Your task to perform on an android device: delete browsing data in the chrome app Image 0: 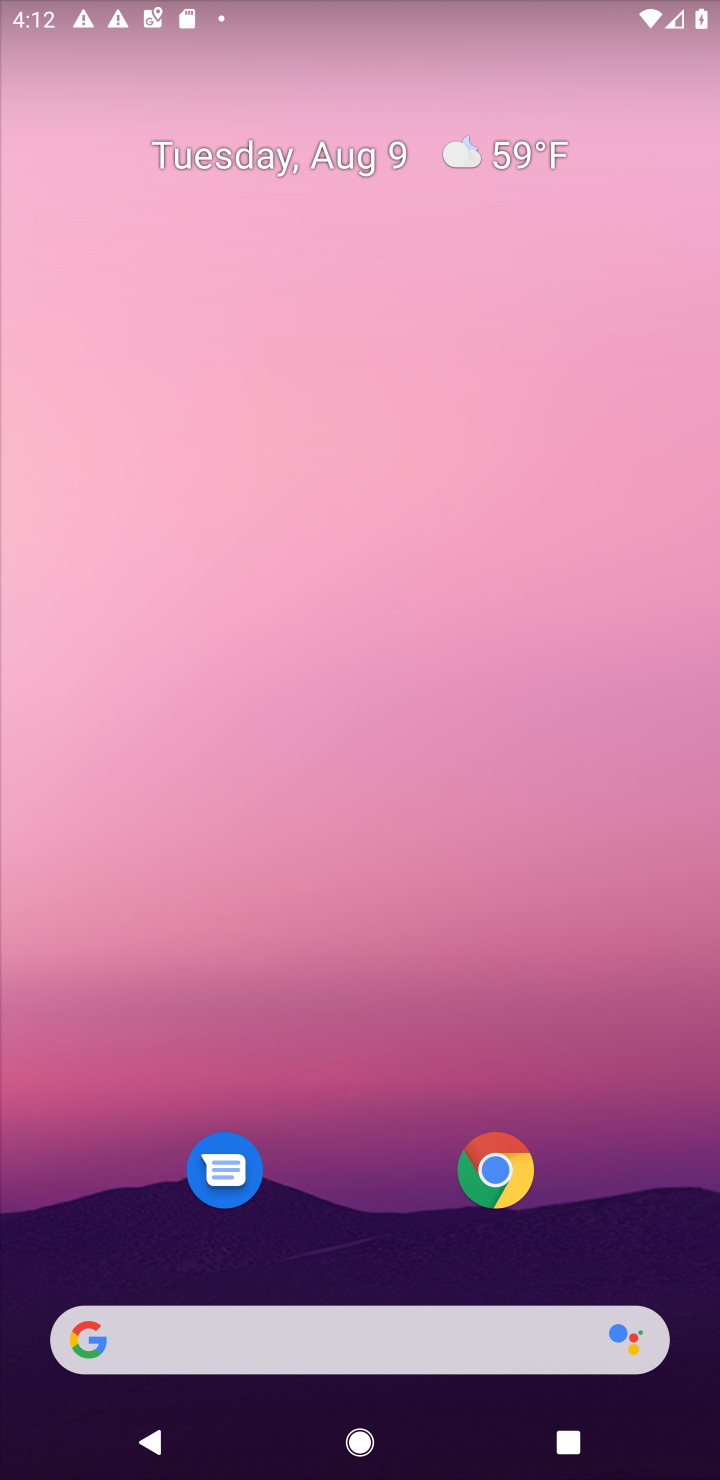
Step 0: press home button
Your task to perform on an android device: delete browsing data in the chrome app Image 1: 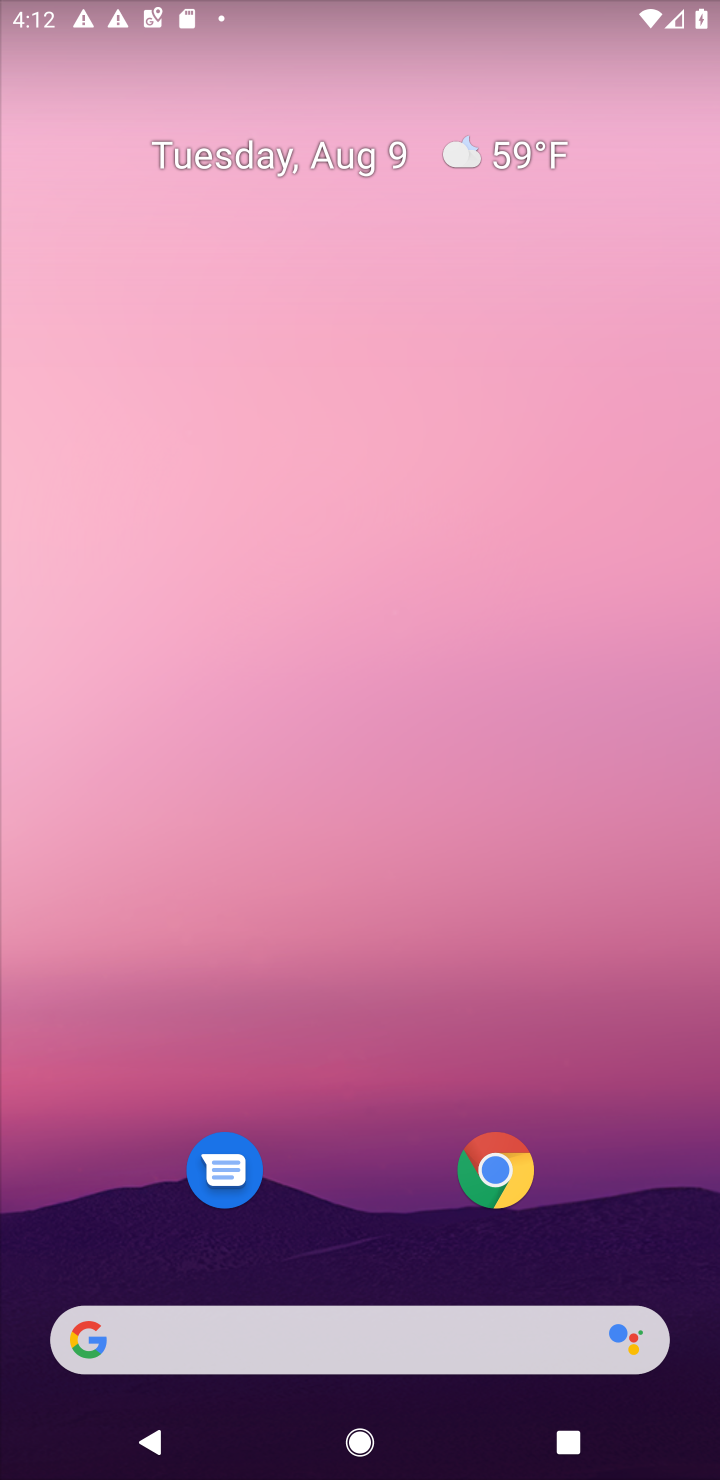
Step 1: click (465, 1167)
Your task to perform on an android device: delete browsing data in the chrome app Image 2: 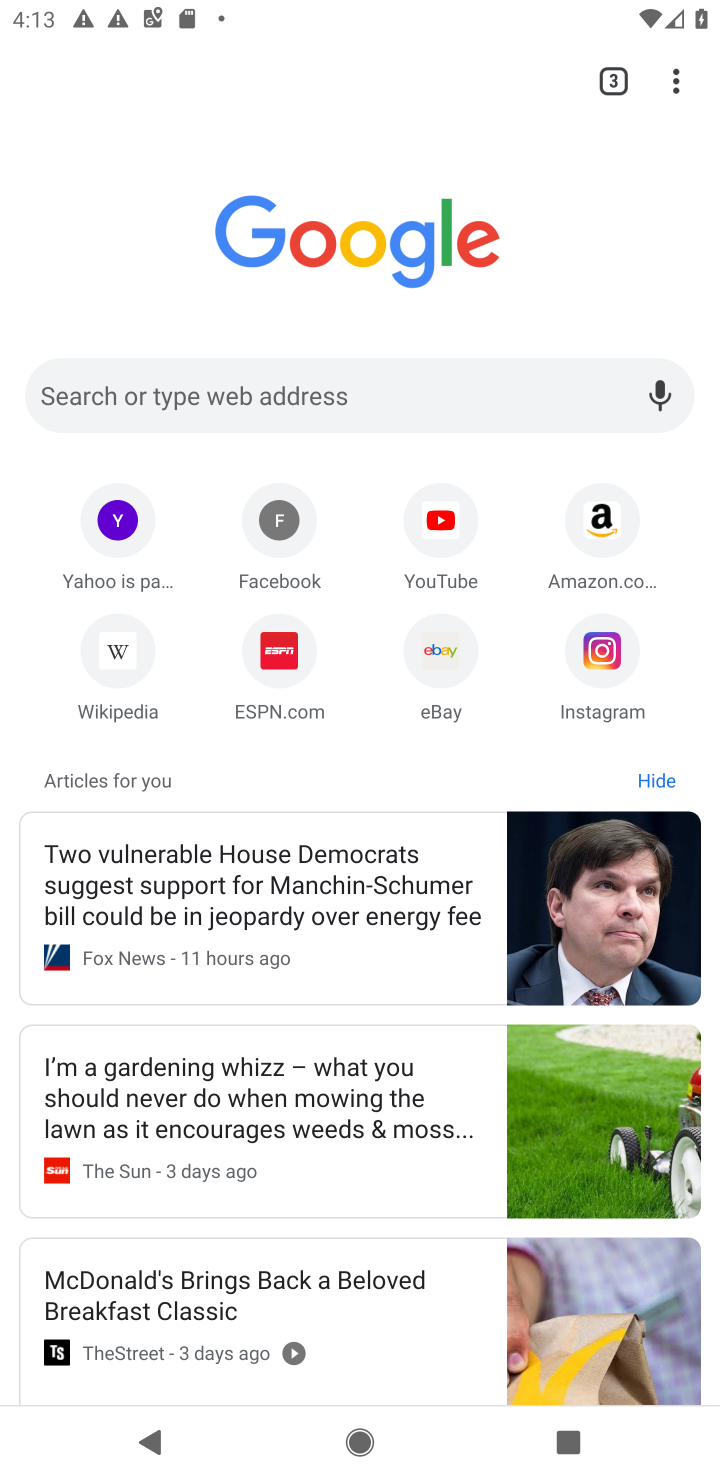
Step 2: click (670, 65)
Your task to perform on an android device: delete browsing data in the chrome app Image 3: 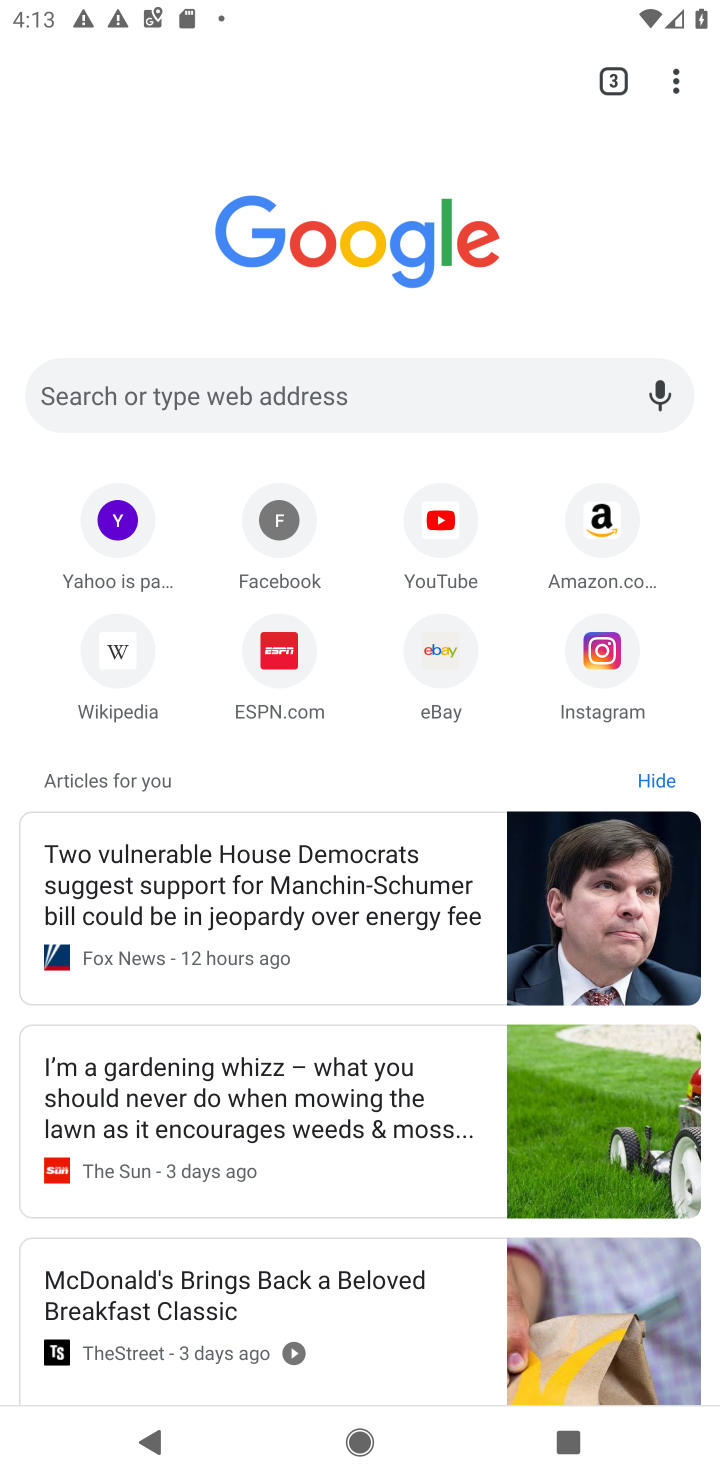
Step 3: drag from (672, 60) to (417, 681)
Your task to perform on an android device: delete browsing data in the chrome app Image 4: 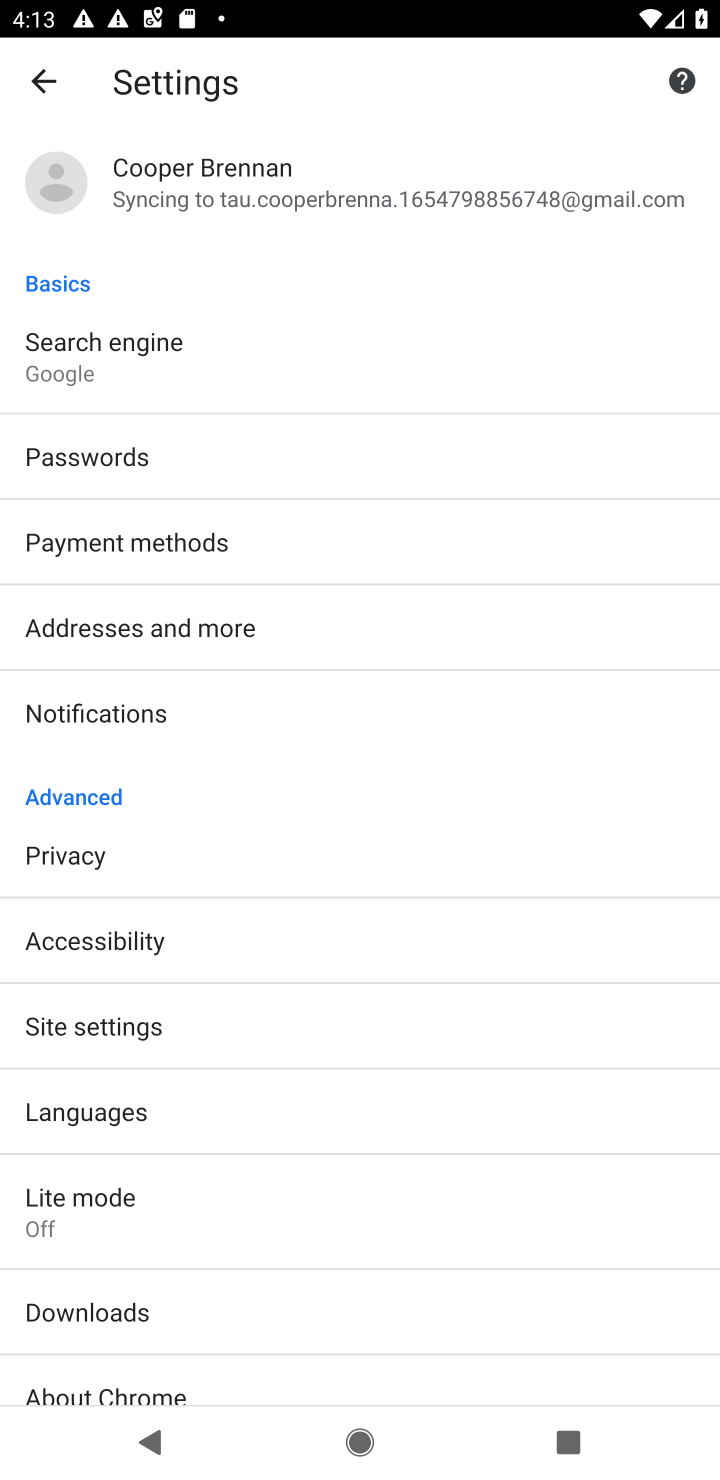
Step 4: click (56, 846)
Your task to perform on an android device: delete browsing data in the chrome app Image 5: 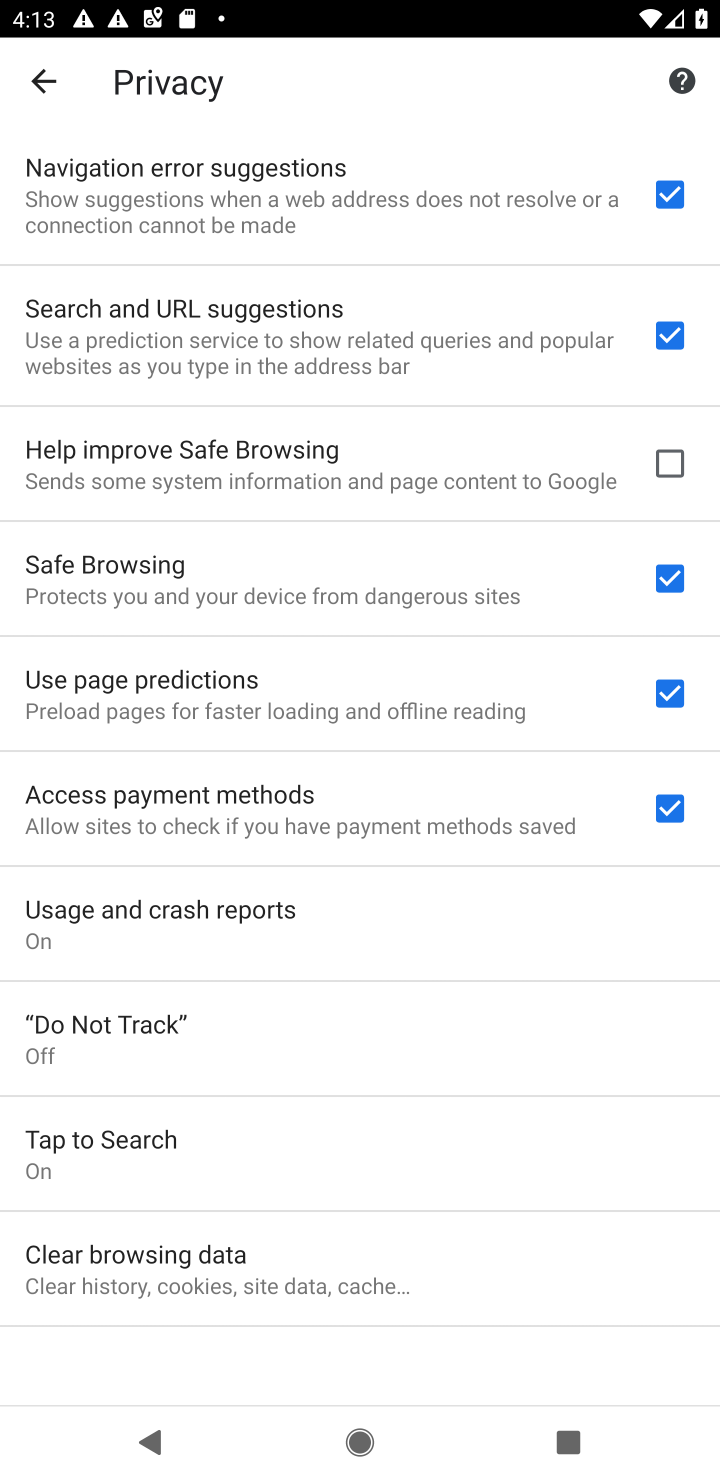
Step 5: click (376, 1280)
Your task to perform on an android device: delete browsing data in the chrome app Image 6: 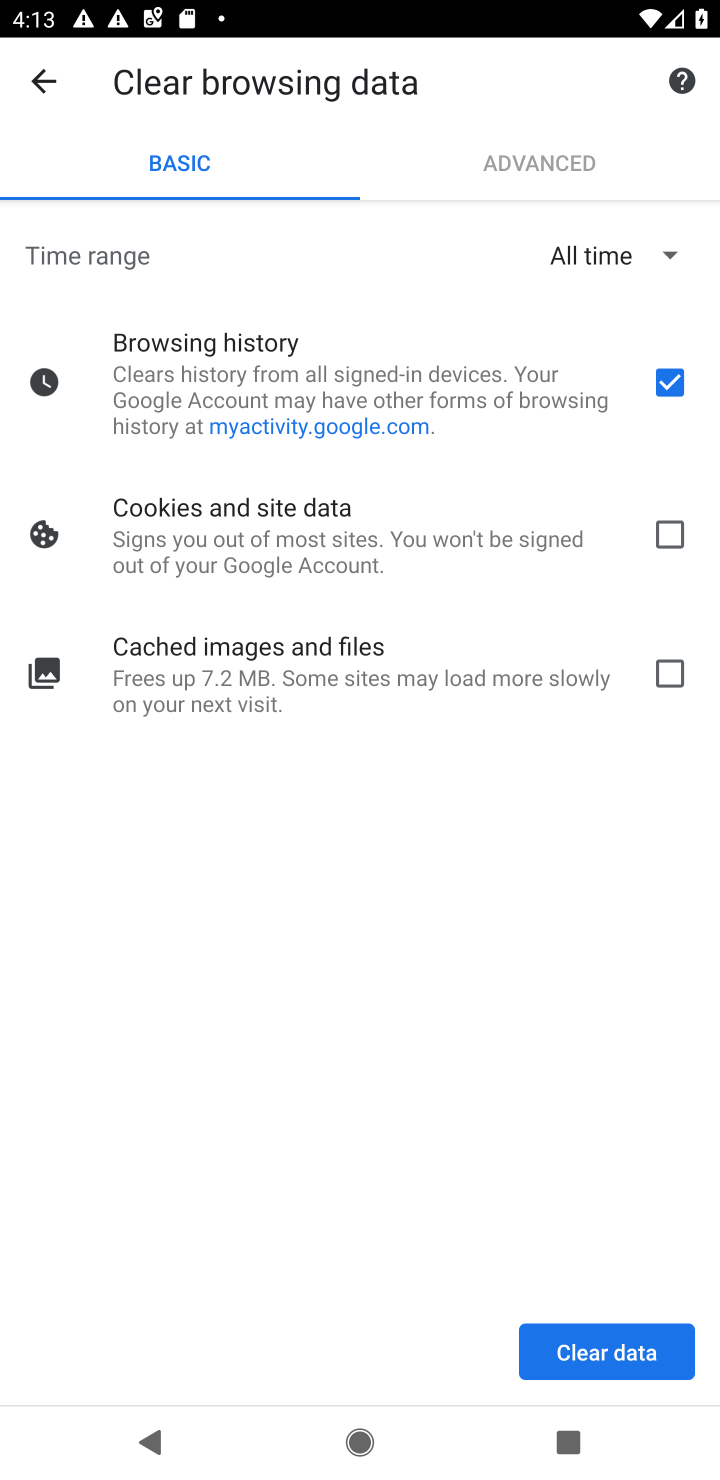
Step 6: click (656, 1348)
Your task to perform on an android device: delete browsing data in the chrome app Image 7: 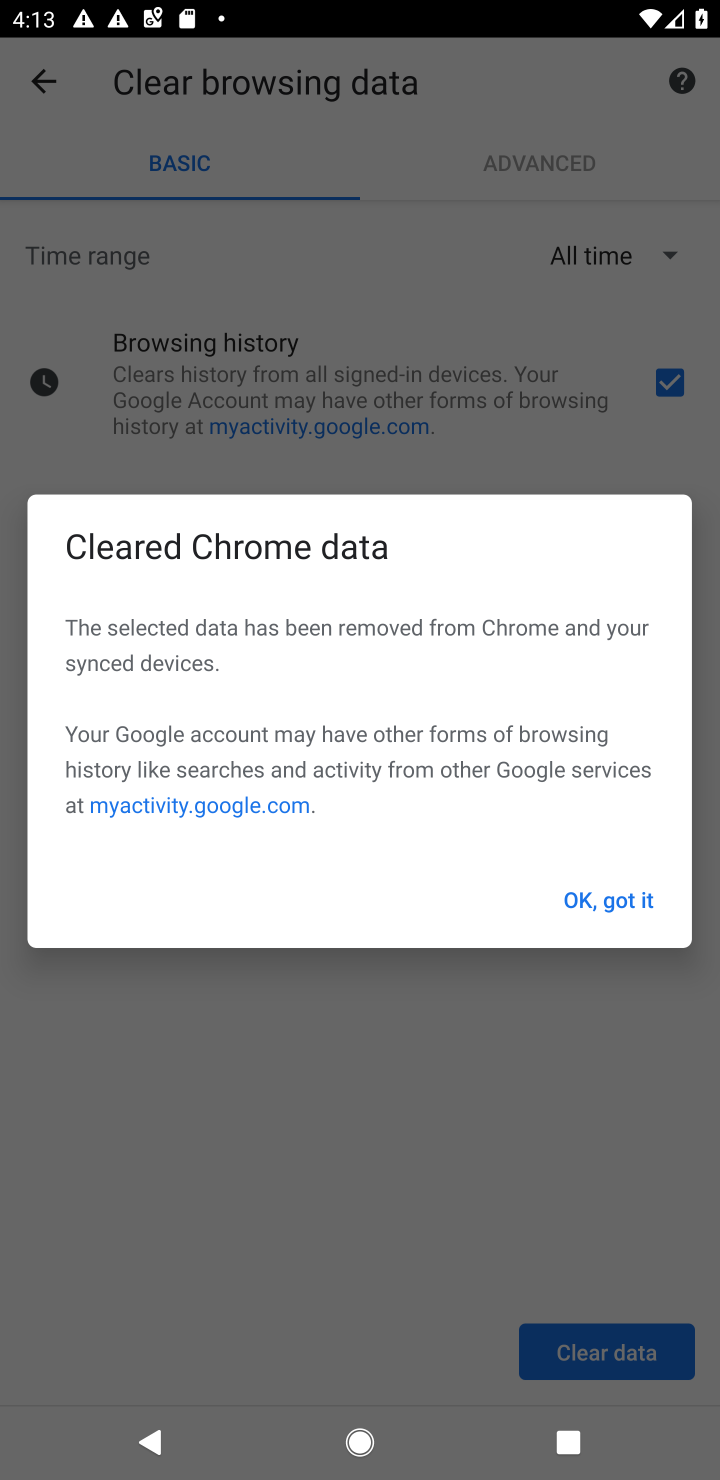
Step 7: click (575, 899)
Your task to perform on an android device: delete browsing data in the chrome app Image 8: 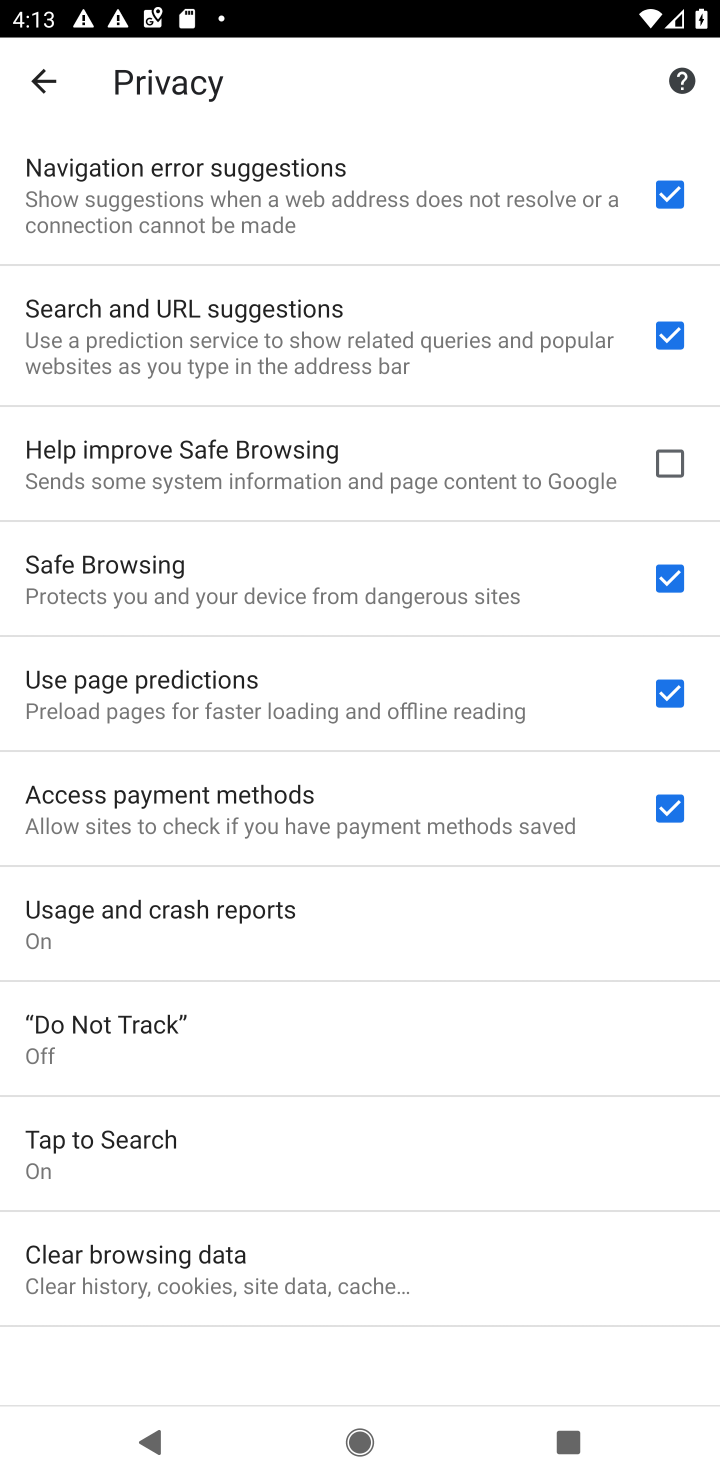
Step 8: task complete